Your task to perform on an android device: Empty the shopping cart on target. Search for apple airpods pro on target, select the first entry, and add it to the cart. Image 0: 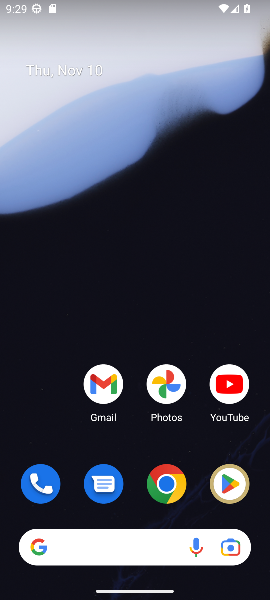
Step 0: click (169, 487)
Your task to perform on an android device: Empty the shopping cart on target. Search for apple airpods pro on target, select the first entry, and add it to the cart. Image 1: 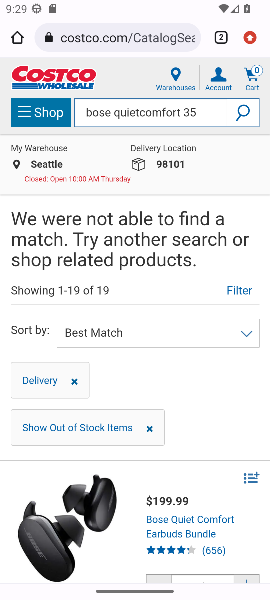
Step 1: click (105, 35)
Your task to perform on an android device: Empty the shopping cart on target. Search for apple airpods pro on target, select the first entry, and add it to the cart. Image 2: 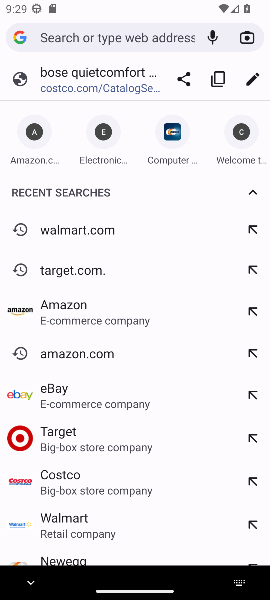
Step 2: click (79, 273)
Your task to perform on an android device: Empty the shopping cart on target. Search for apple airpods pro on target, select the first entry, and add it to the cart. Image 3: 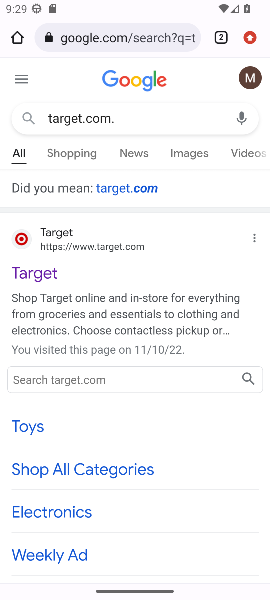
Step 3: click (48, 282)
Your task to perform on an android device: Empty the shopping cart on target. Search for apple airpods pro on target, select the first entry, and add it to the cart. Image 4: 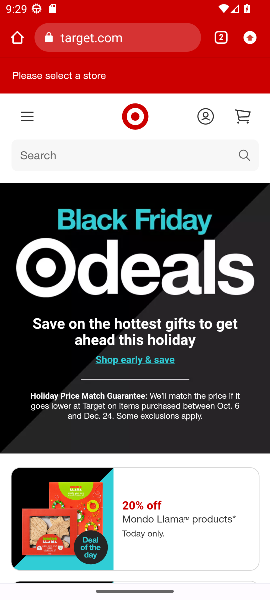
Step 4: click (243, 112)
Your task to perform on an android device: Empty the shopping cart on target. Search for apple airpods pro on target, select the first entry, and add it to the cart. Image 5: 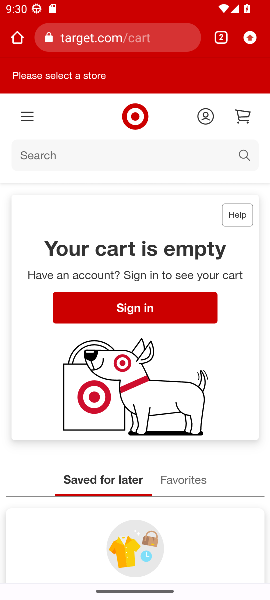
Step 5: click (243, 157)
Your task to perform on an android device: Empty the shopping cart on target. Search for apple airpods pro on target, select the first entry, and add it to the cart. Image 6: 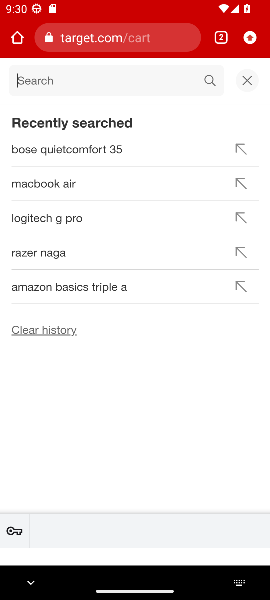
Step 6: type "apple airpods pro"
Your task to perform on an android device: Empty the shopping cart on target. Search for apple airpods pro on target, select the first entry, and add it to the cart. Image 7: 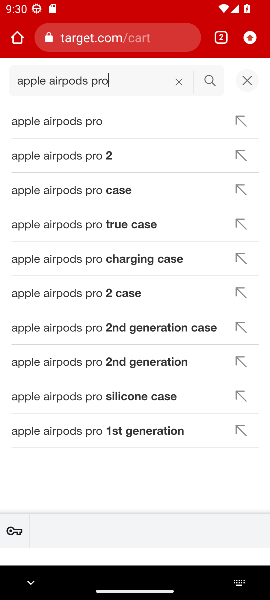
Step 7: click (79, 125)
Your task to perform on an android device: Empty the shopping cart on target. Search for apple airpods pro on target, select the first entry, and add it to the cart. Image 8: 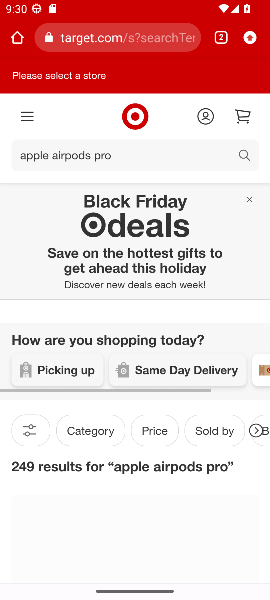
Step 8: drag from (116, 396) to (123, 204)
Your task to perform on an android device: Empty the shopping cart on target. Search for apple airpods pro on target, select the first entry, and add it to the cart. Image 9: 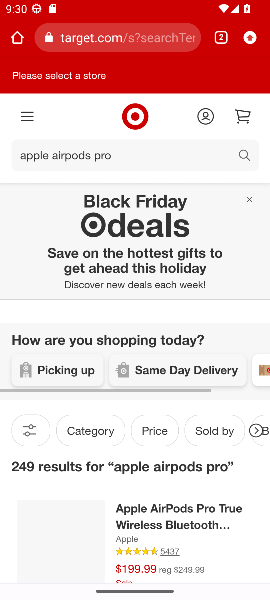
Step 9: click (85, 539)
Your task to perform on an android device: Empty the shopping cart on target. Search for apple airpods pro on target, select the first entry, and add it to the cart. Image 10: 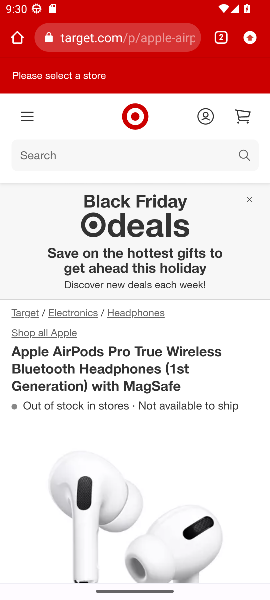
Step 10: drag from (107, 492) to (118, 162)
Your task to perform on an android device: Empty the shopping cart on target. Search for apple airpods pro on target, select the first entry, and add it to the cart. Image 11: 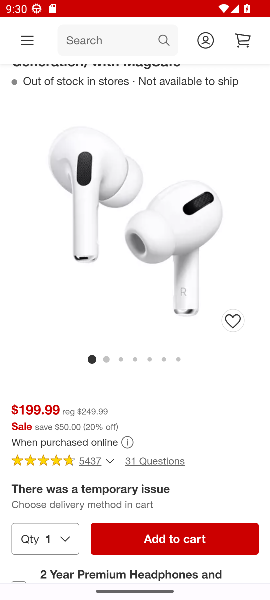
Step 11: drag from (130, 458) to (135, 306)
Your task to perform on an android device: Empty the shopping cart on target. Search for apple airpods pro on target, select the first entry, and add it to the cart. Image 12: 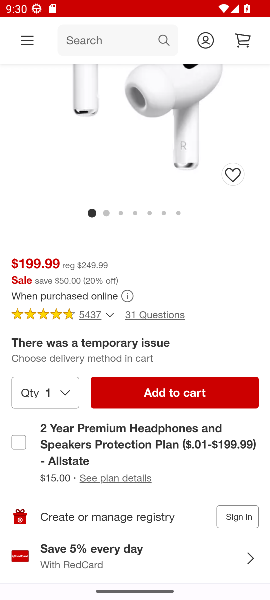
Step 12: click (155, 390)
Your task to perform on an android device: Empty the shopping cart on target. Search for apple airpods pro on target, select the first entry, and add it to the cart. Image 13: 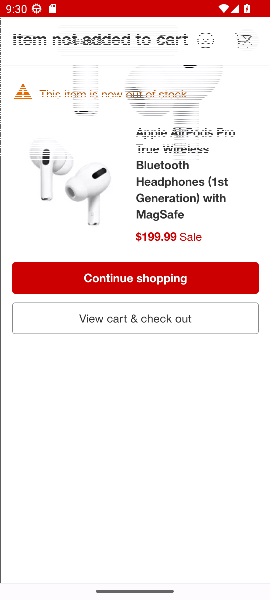
Step 13: task complete